Your task to perform on an android device: change the clock display to analog Image 0: 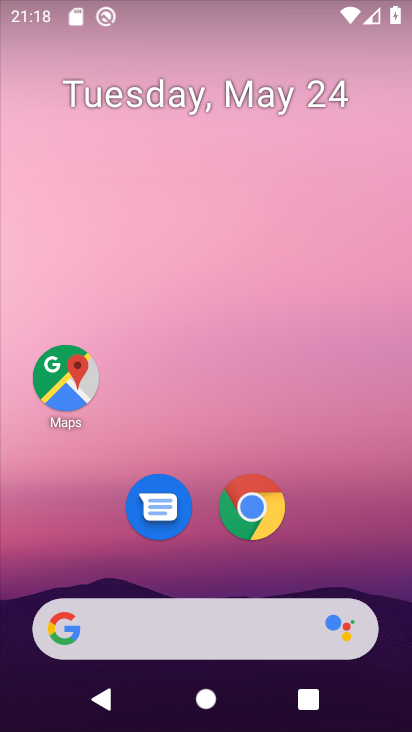
Step 0: drag from (206, 507) to (280, 48)
Your task to perform on an android device: change the clock display to analog Image 1: 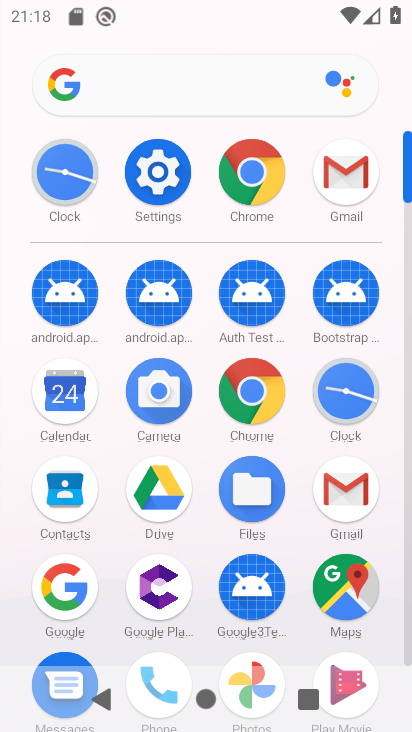
Step 1: click (344, 381)
Your task to perform on an android device: change the clock display to analog Image 2: 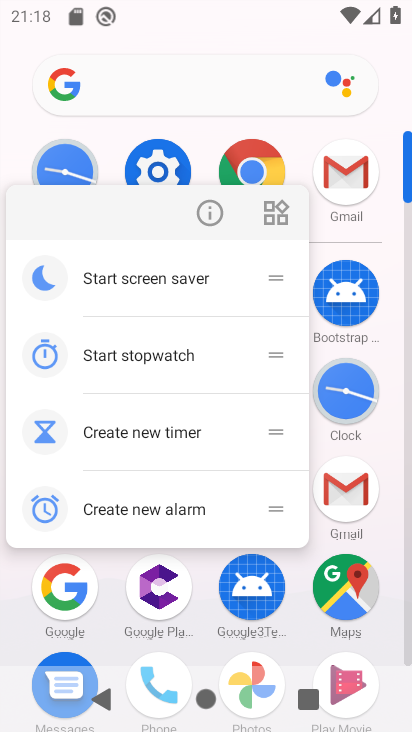
Step 2: click (207, 206)
Your task to perform on an android device: change the clock display to analog Image 3: 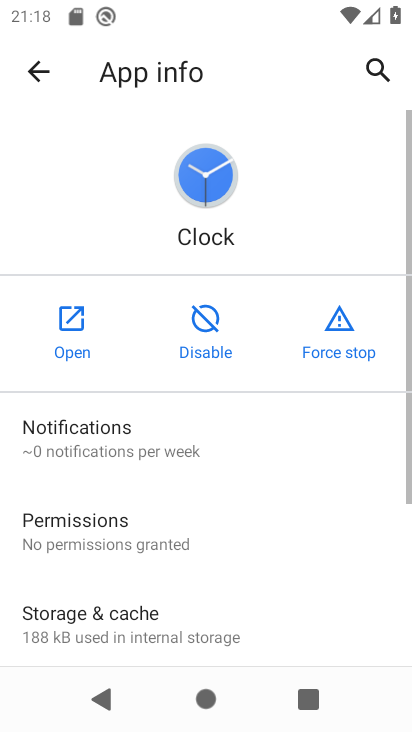
Step 3: click (58, 325)
Your task to perform on an android device: change the clock display to analog Image 4: 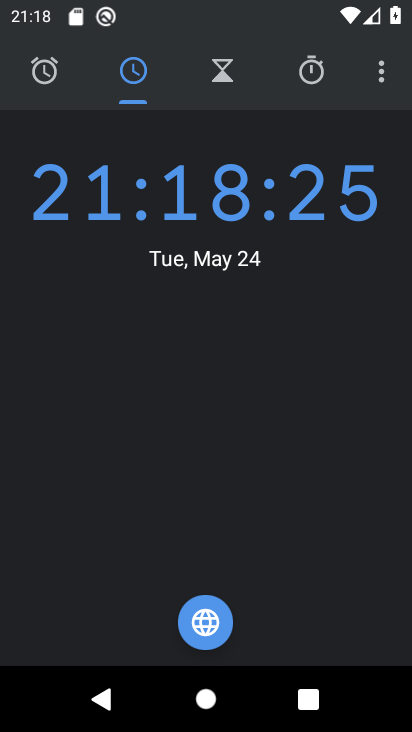
Step 4: click (380, 84)
Your task to perform on an android device: change the clock display to analog Image 5: 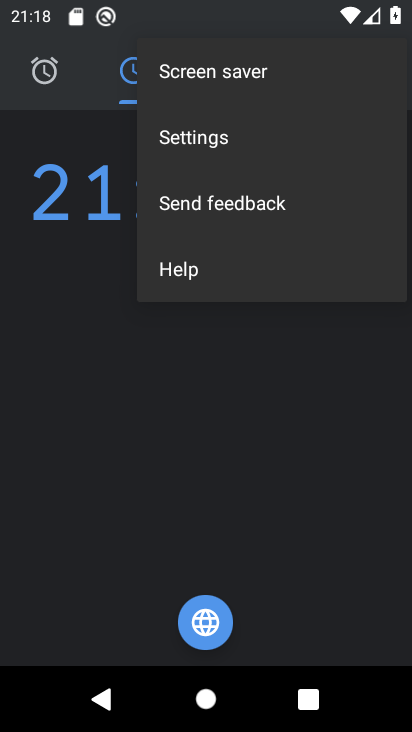
Step 5: click (231, 128)
Your task to perform on an android device: change the clock display to analog Image 6: 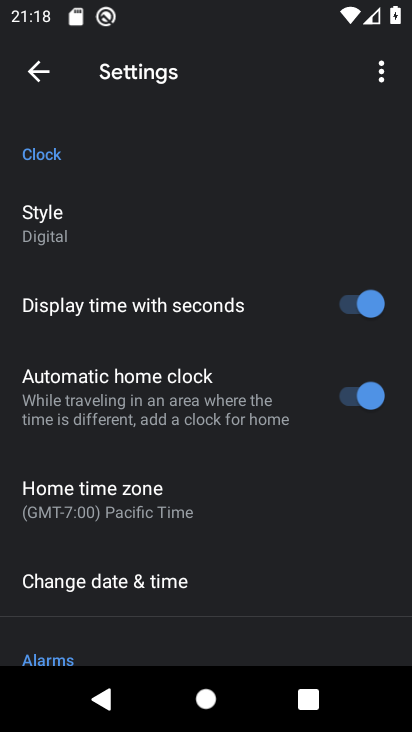
Step 6: drag from (193, 522) to (218, 247)
Your task to perform on an android device: change the clock display to analog Image 7: 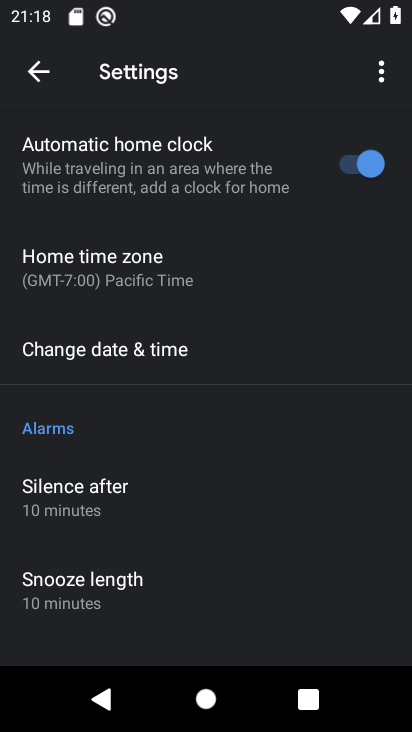
Step 7: drag from (212, 220) to (284, 709)
Your task to perform on an android device: change the clock display to analog Image 8: 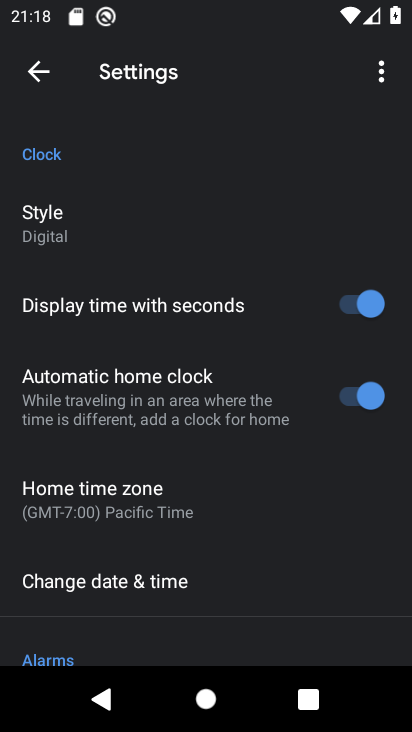
Step 8: click (89, 226)
Your task to perform on an android device: change the clock display to analog Image 9: 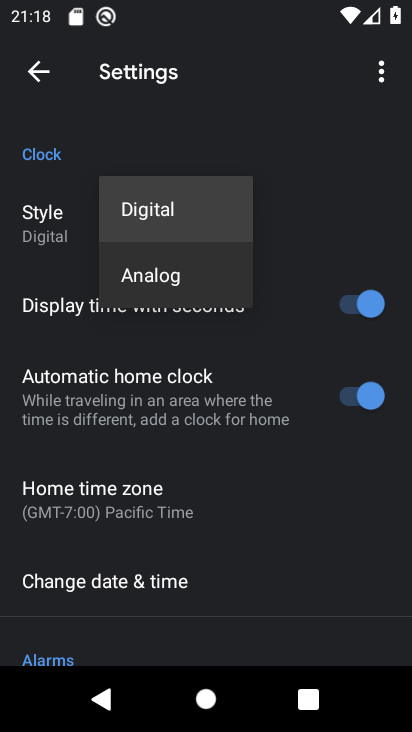
Step 9: click (188, 290)
Your task to perform on an android device: change the clock display to analog Image 10: 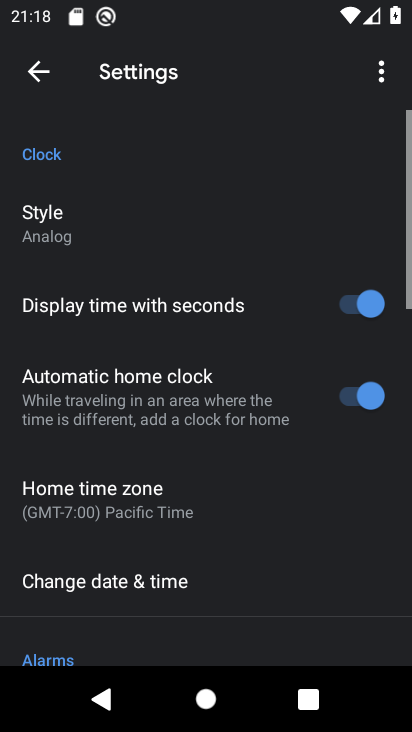
Step 10: task complete